Your task to perform on an android device: toggle wifi Image 0: 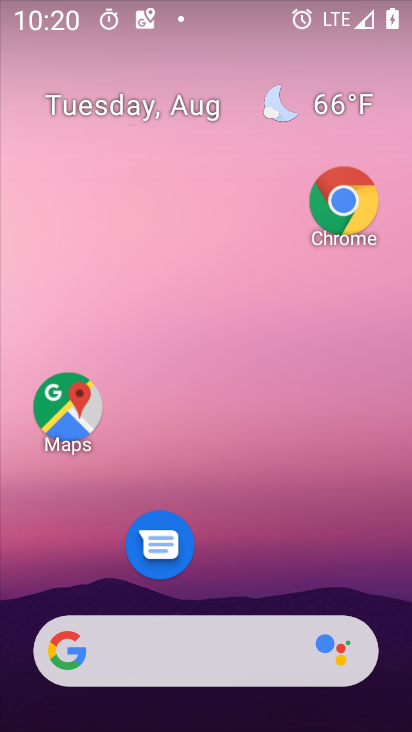
Step 0: drag from (237, 557) to (411, 172)
Your task to perform on an android device: toggle wifi Image 1: 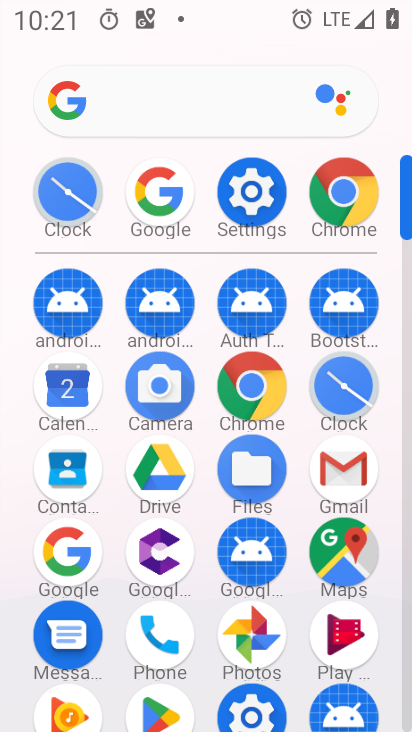
Step 1: click (249, 227)
Your task to perform on an android device: toggle wifi Image 2: 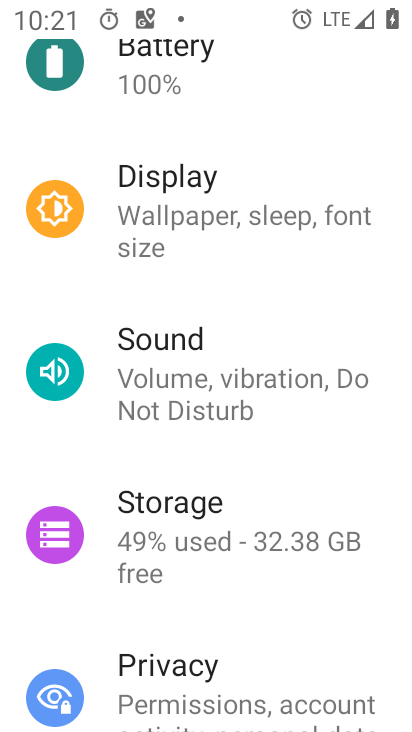
Step 2: drag from (236, 217) to (355, 572)
Your task to perform on an android device: toggle wifi Image 3: 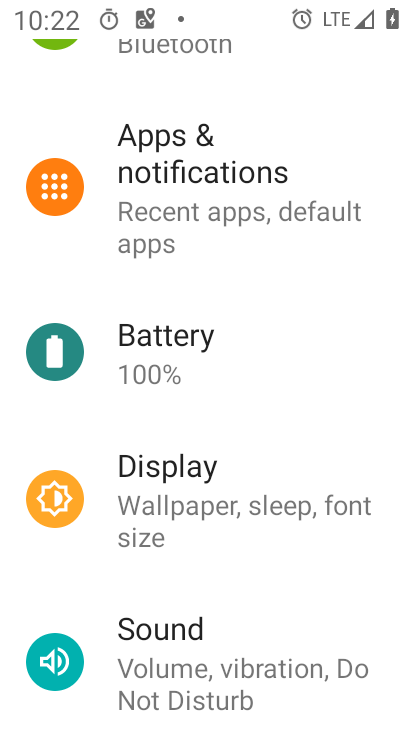
Step 3: drag from (167, 253) to (146, 723)
Your task to perform on an android device: toggle wifi Image 4: 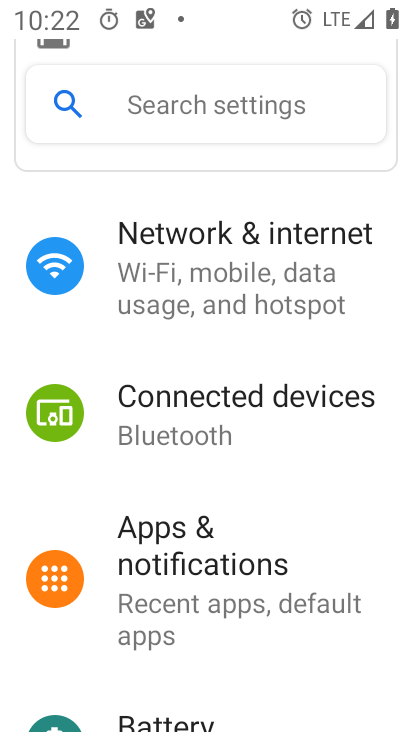
Step 4: drag from (229, 328) to (203, 624)
Your task to perform on an android device: toggle wifi Image 5: 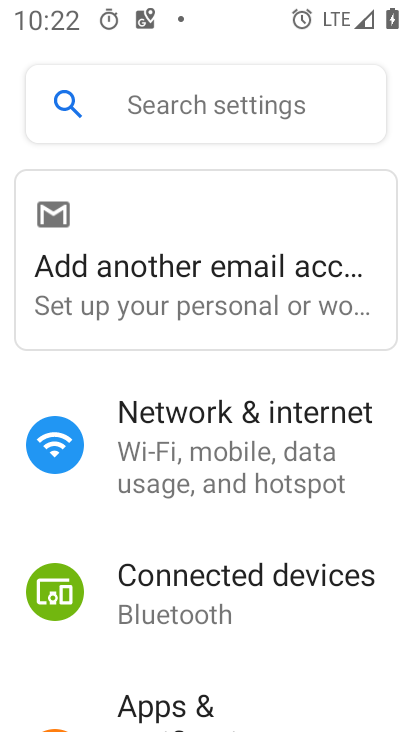
Step 5: click (232, 436)
Your task to perform on an android device: toggle wifi Image 6: 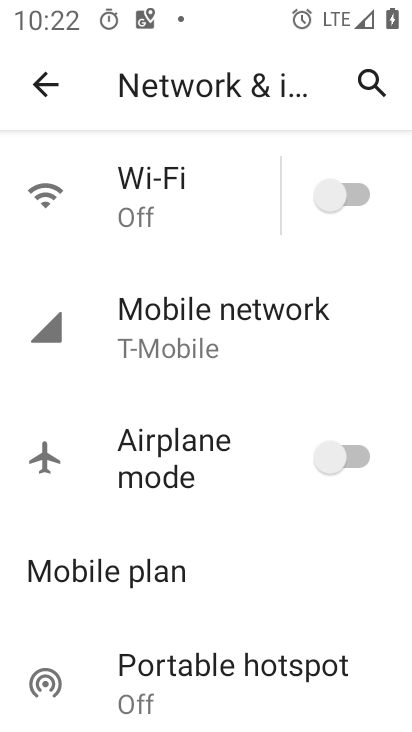
Step 6: click (155, 197)
Your task to perform on an android device: toggle wifi Image 7: 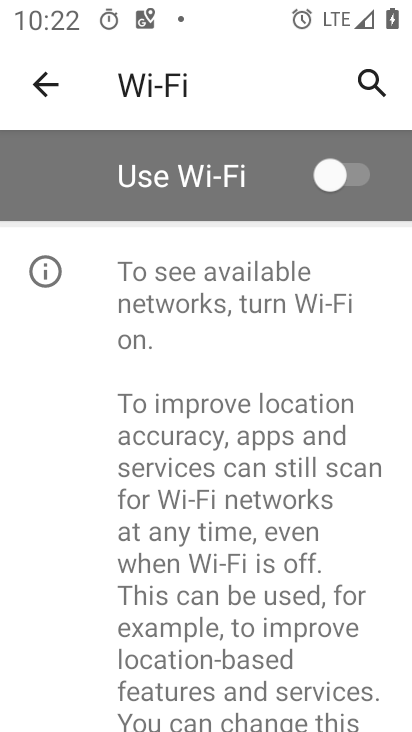
Step 7: click (350, 164)
Your task to perform on an android device: toggle wifi Image 8: 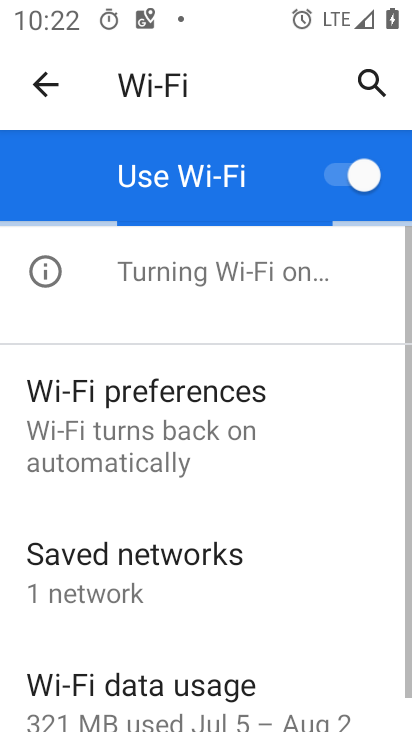
Step 8: task complete